Your task to perform on an android device: Open Google Maps and go to "Timeline" Image 0: 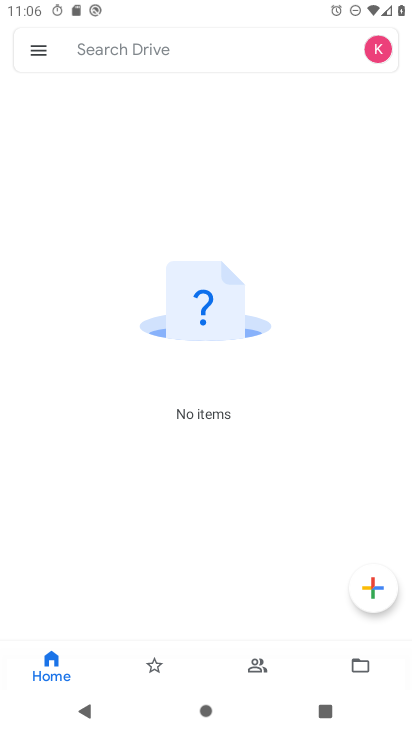
Step 0: press back button
Your task to perform on an android device: Open Google Maps and go to "Timeline" Image 1: 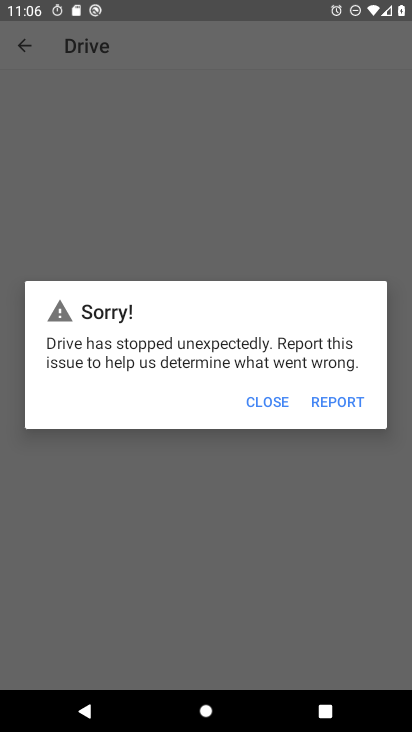
Step 1: press home button
Your task to perform on an android device: Open Google Maps and go to "Timeline" Image 2: 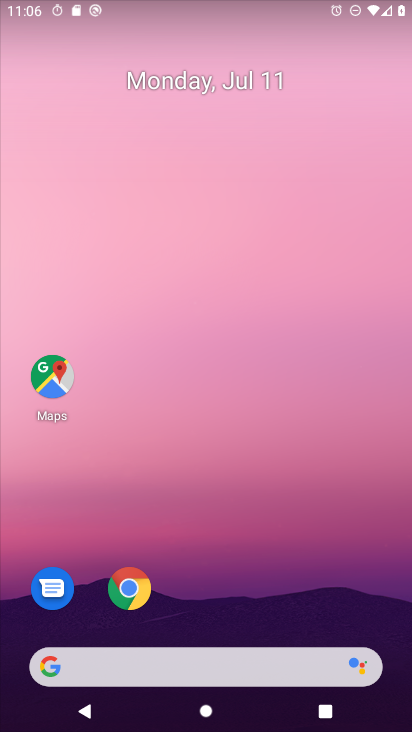
Step 2: click (42, 372)
Your task to perform on an android device: Open Google Maps and go to "Timeline" Image 3: 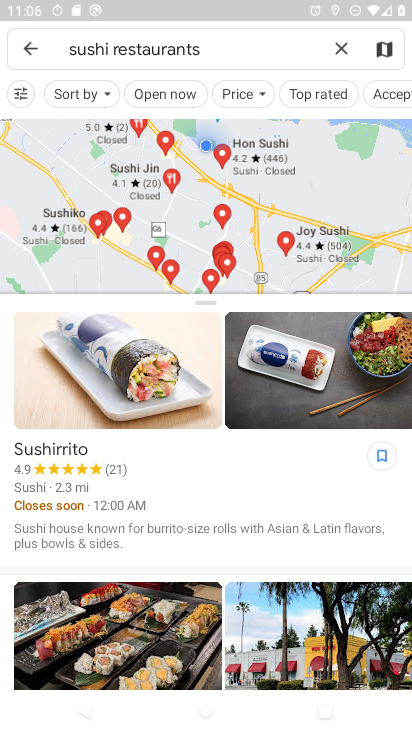
Step 3: click (25, 42)
Your task to perform on an android device: Open Google Maps and go to "Timeline" Image 4: 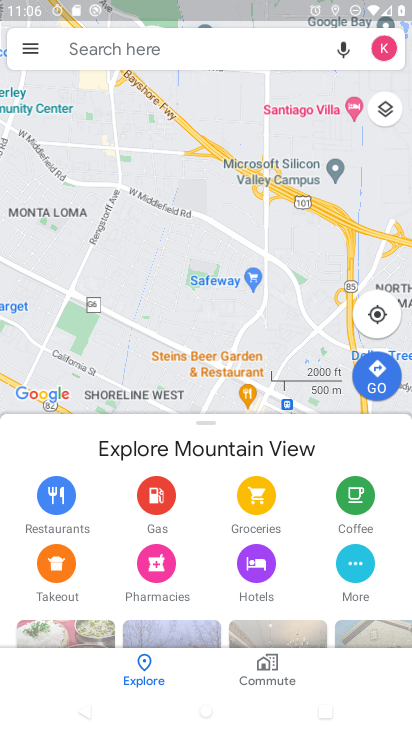
Step 4: click (32, 44)
Your task to perform on an android device: Open Google Maps and go to "Timeline" Image 5: 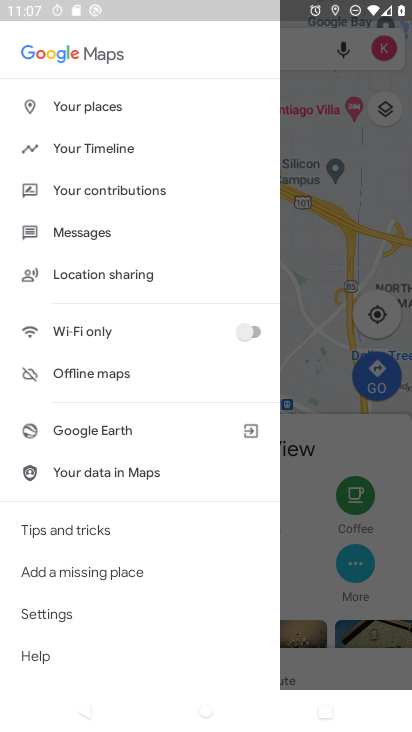
Step 5: click (92, 144)
Your task to perform on an android device: Open Google Maps and go to "Timeline" Image 6: 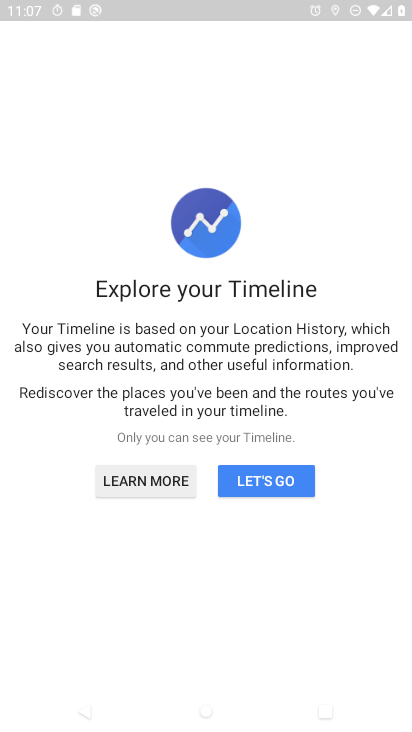
Step 6: click (244, 487)
Your task to perform on an android device: Open Google Maps and go to "Timeline" Image 7: 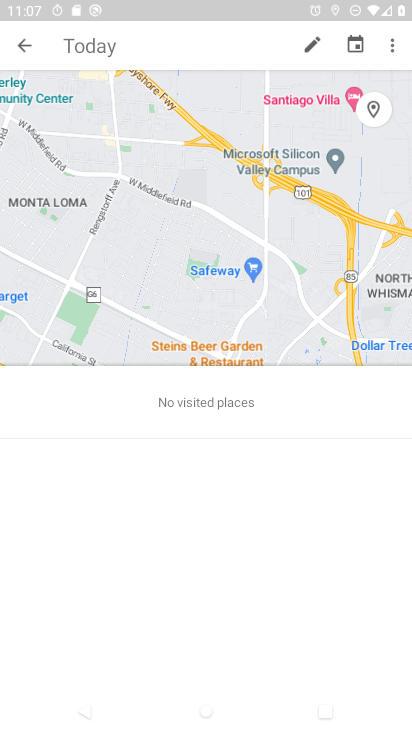
Step 7: task complete